Your task to perform on an android device: Open Google Chrome and click the shortcut for Amazon.com Image 0: 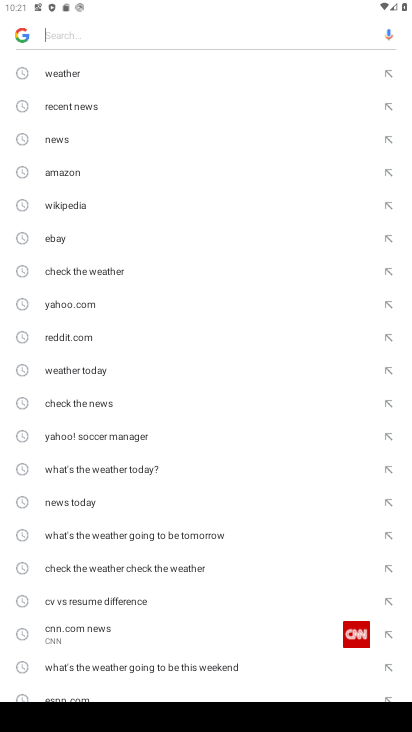
Step 0: press home button
Your task to perform on an android device: Open Google Chrome and click the shortcut for Amazon.com Image 1: 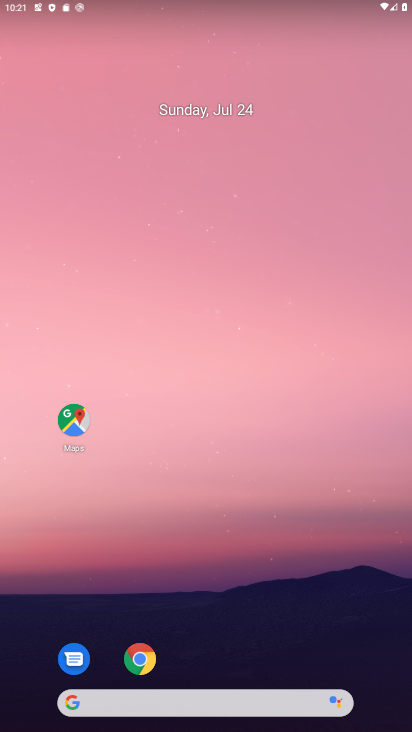
Step 1: click (148, 664)
Your task to perform on an android device: Open Google Chrome and click the shortcut for Amazon.com Image 2: 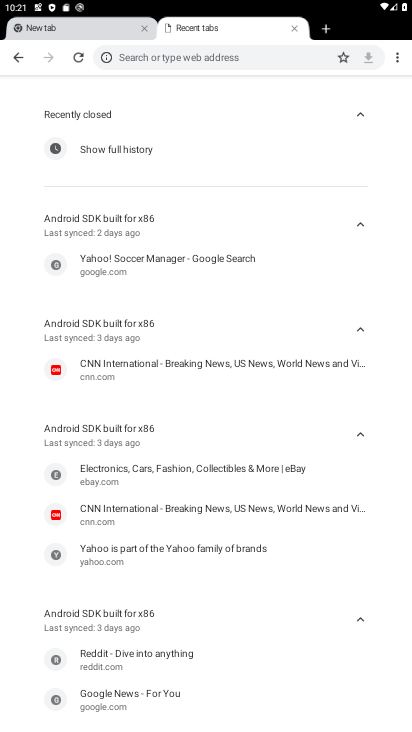
Step 2: click (402, 59)
Your task to perform on an android device: Open Google Chrome and click the shortcut for Amazon.com Image 3: 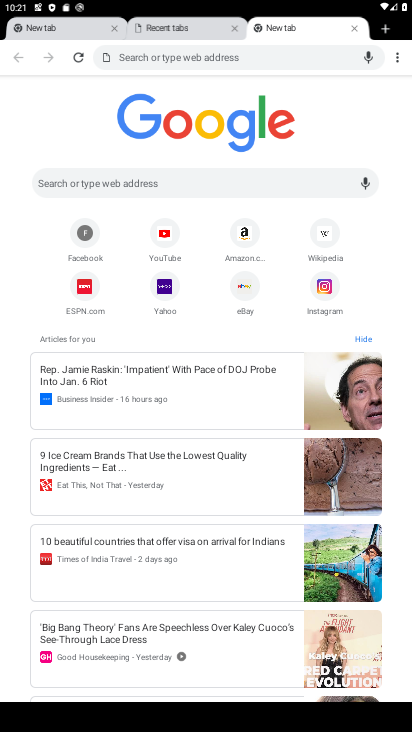
Step 3: click (236, 231)
Your task to perform on an android device: Open Google Chrome and click the shortcut for Amazon.com Image 4: 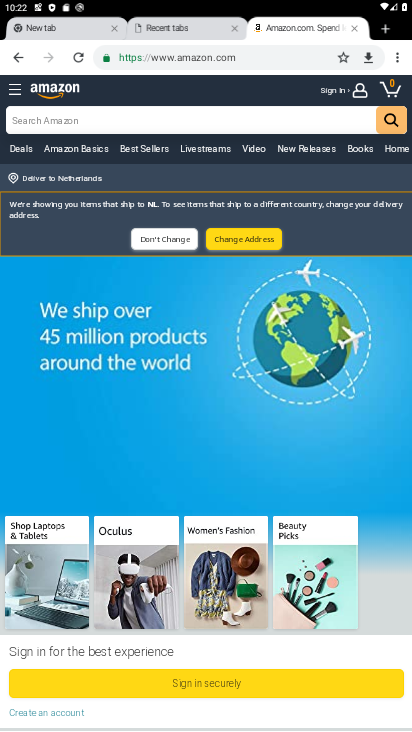
Step 4: task complete